Your task to perform on an android device: set an alarm Image 0: 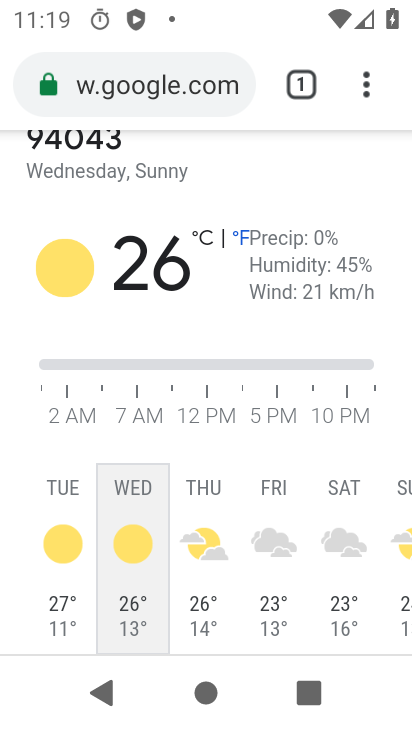
Step 0: press back button
Your task to perform on an android device: set an alarm Image 1: 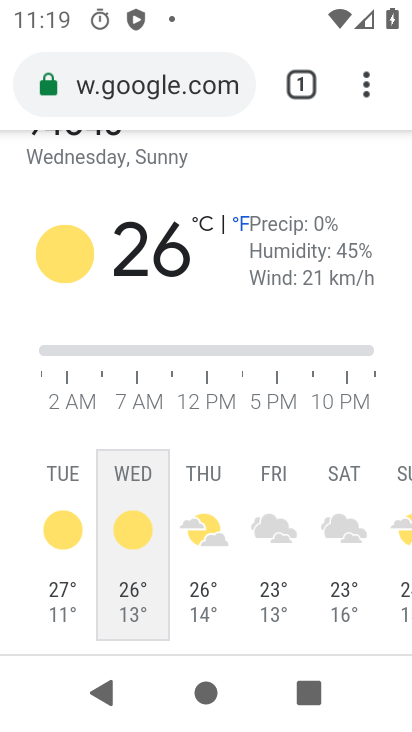
Step 1: press home button
Your task to perform on an android device: set an alarm Image 2: 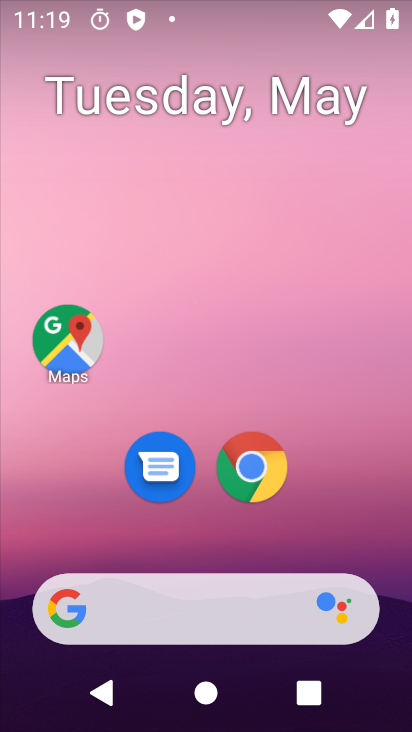
Step 2: drag from (359, 509) to (240, 41)
Your task to perform on an android device: set an alarm Image 3: 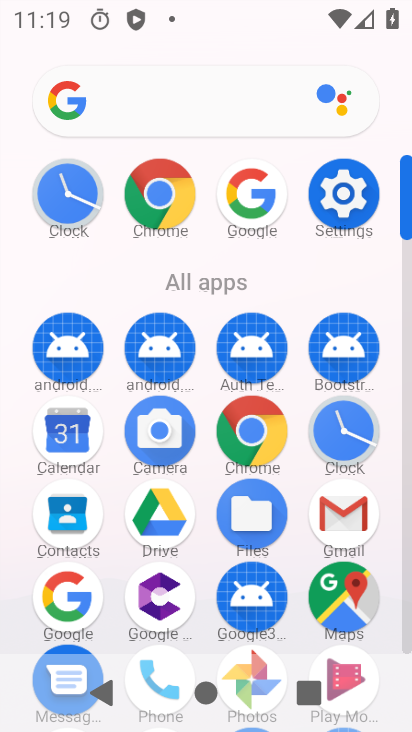
Step 3: drag from (19, 540) to (14, 217)
Your task to perform on an android device: set an alarm Image 4: 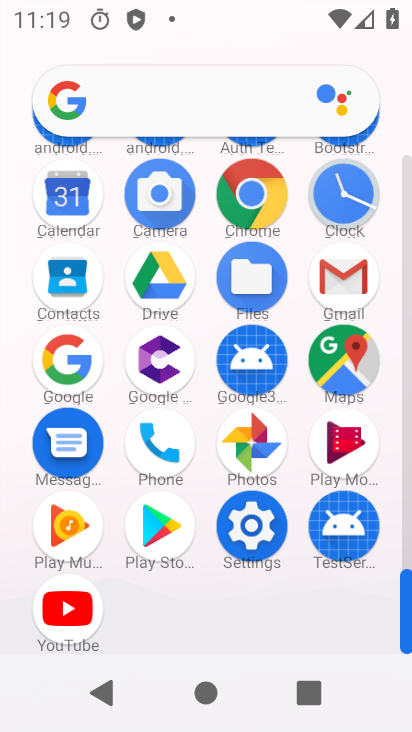
Step 4: drag from (40, 218) to (15, 458)
Your task to perform on an android device: set an alarm Image 5: 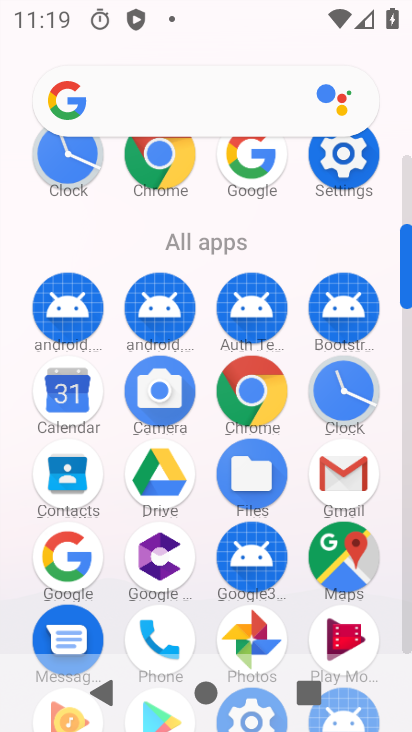
Step 5: click (342, 384)
Your task to perform on an android device: set an alarm Image 6: 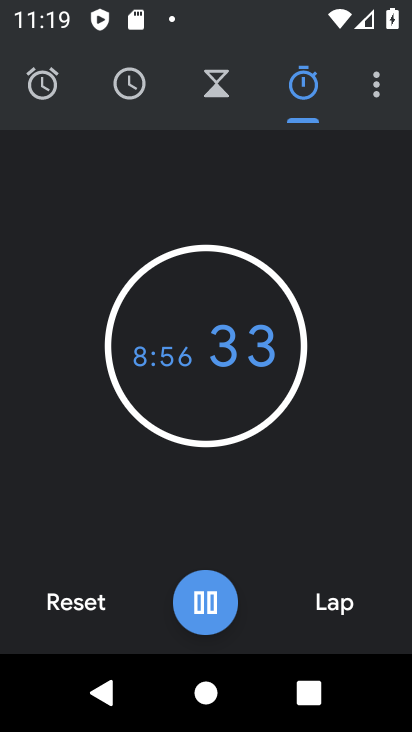
Step 6: click (27, 80)
Your task to perform on an android device: set an alarm Image 7: 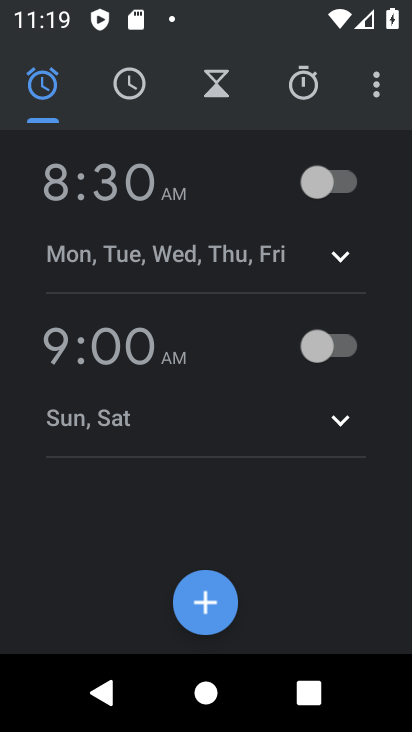
Step 7: click (203, 598)
Your task to perform on an android device: set an alarm Image 8: 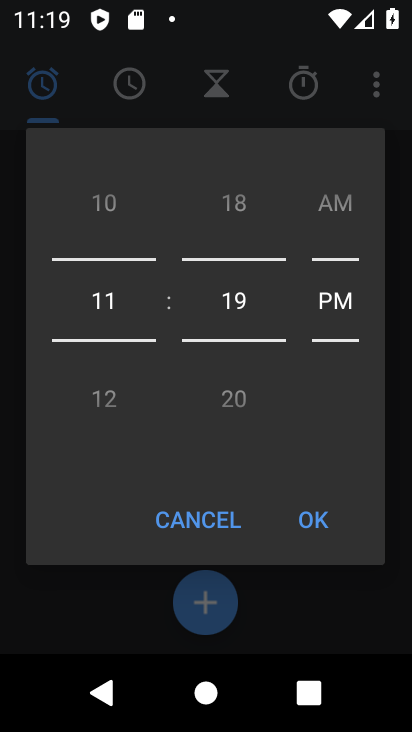
Step 8: drag from (133, 393) to (133, 152)
Your task to perform on an android device: set an alarm Image 9: 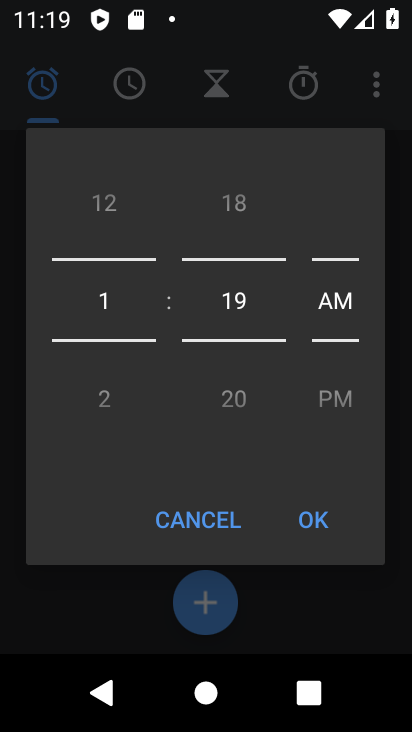
Step 9: drag from (346, 394) to (339, 219)
Your task to perform on an android device: set an alarm Image 10: 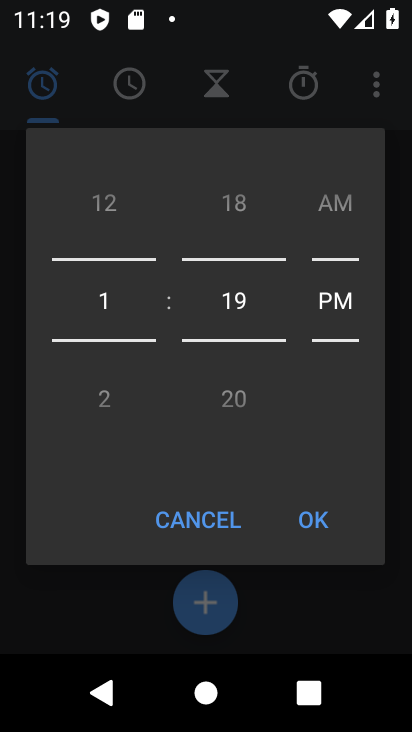
Step 10: click (310, 528)
Your task to perform on an android device: set an alarm Image 11: 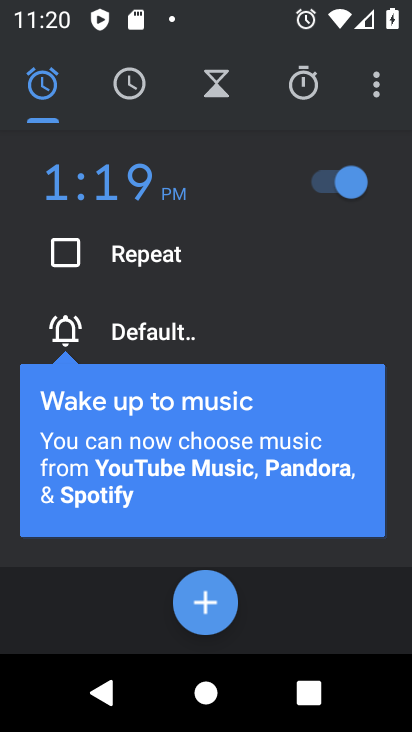
Step 11: task complete